Your task to perform on an android device: Open the web browser Image 0: 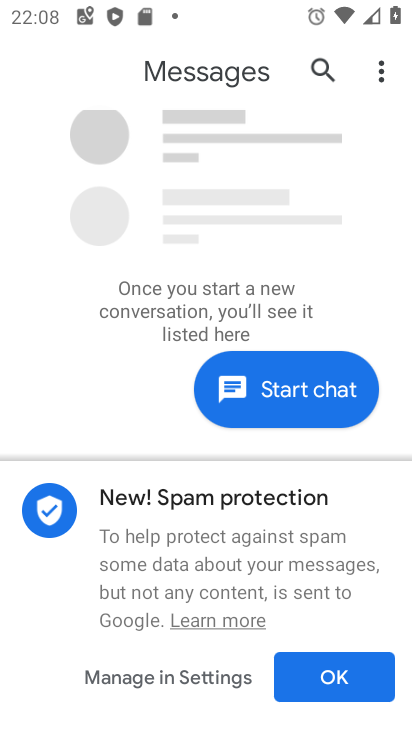
Step 0: press home button
Your task to perform on an android device: Open the web browser Image 1: 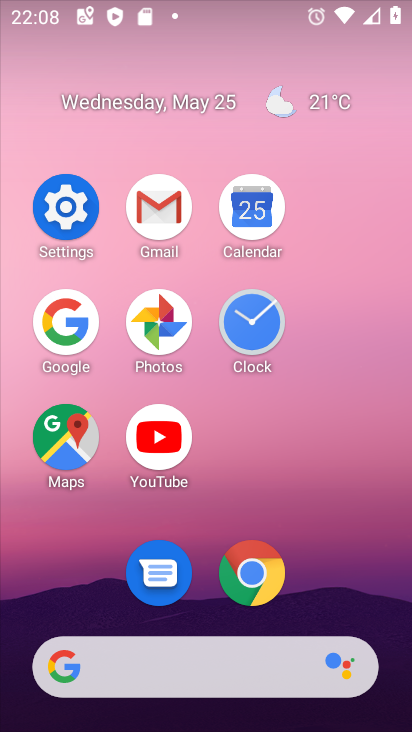
Step 1: click (256, 566)
Your task to perform on an android device: Open the web browser Image 2: 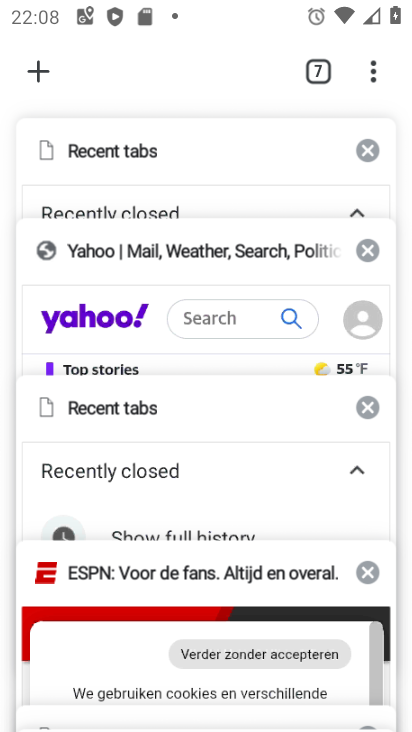
Step 2: task complete